Your task to perform on an android device: Open eBay Image 0: 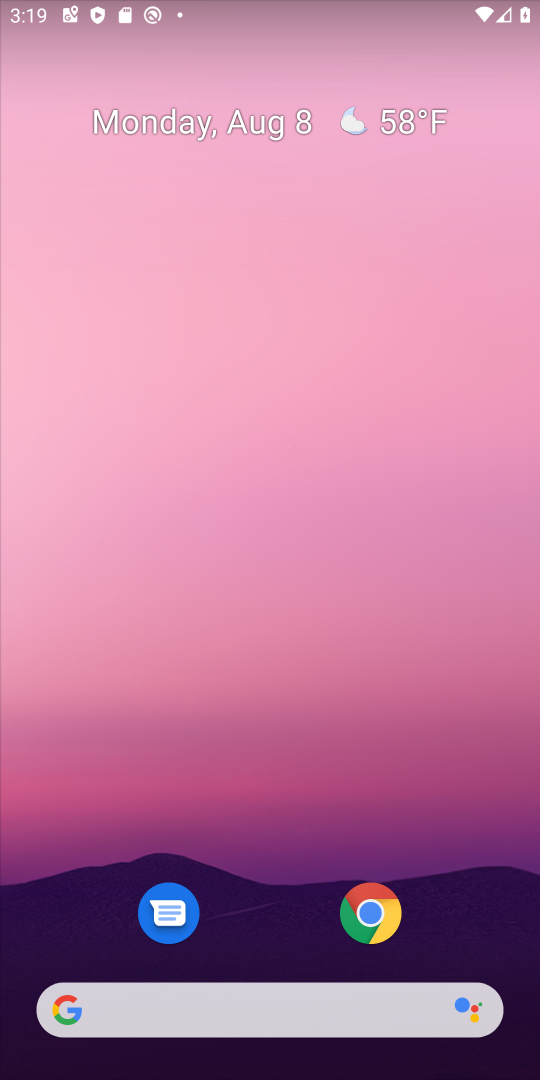
Step 0: press home button
Your task to perform on an android device: Open eBay Image 1: 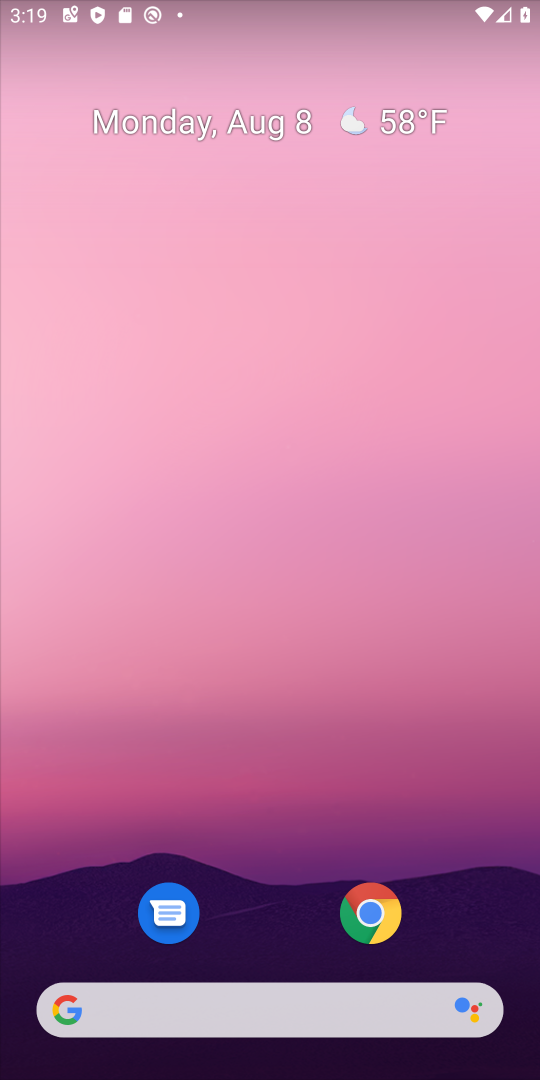
Step 1: drag from (273, 905) to (319, 196)
Your task to perform on an android device: Open eBay Image 2: 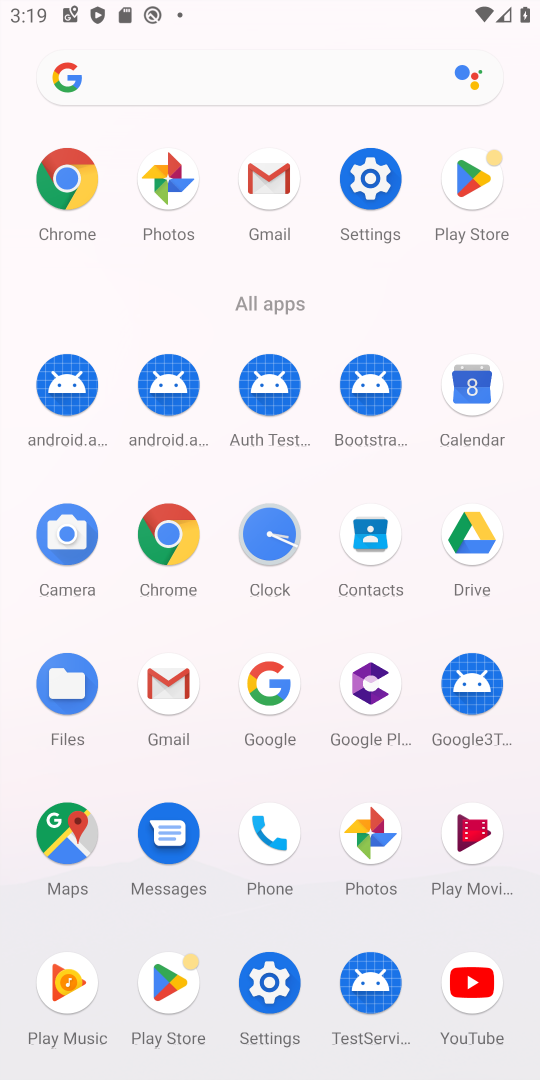
Step 2: click (171, 539)
Your task to perform on an android device: Open eBay Image 3: 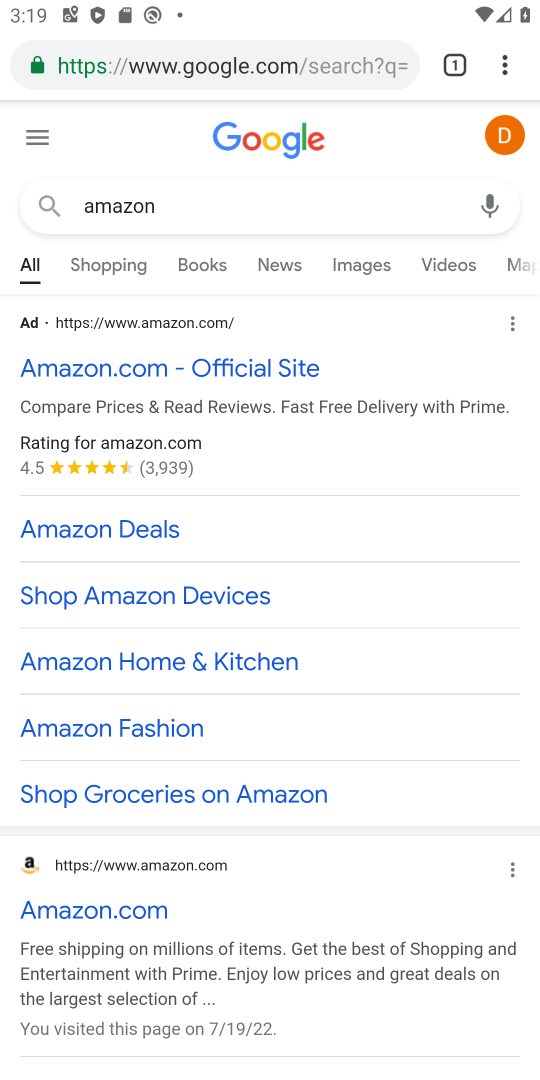
Step 3: click (342, 66)
Your task to perform on an android device: Open eBay Image 4: 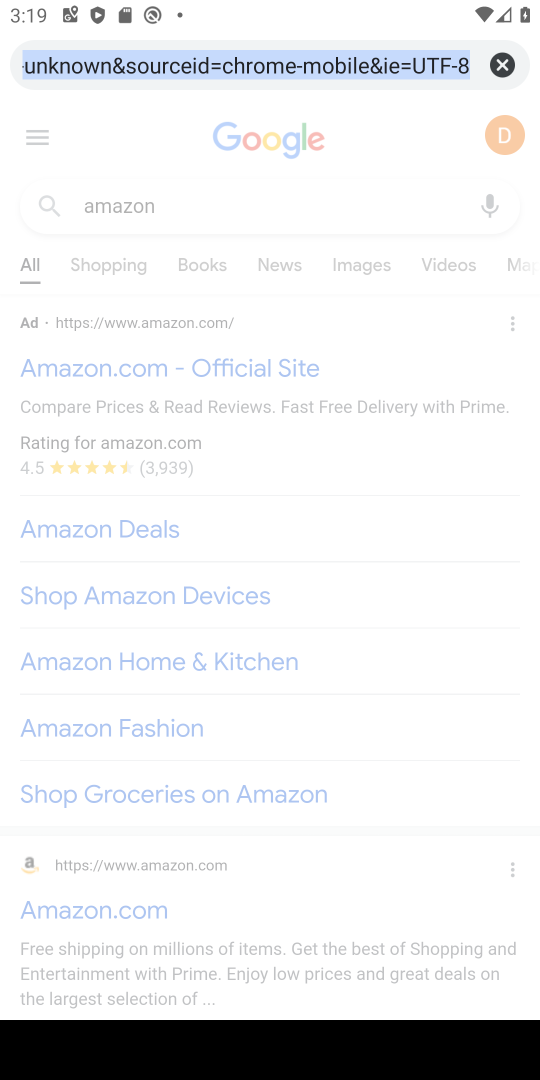
Step 4: type "ebay"
Your task to perform on an android device: Open eBay Image 5: 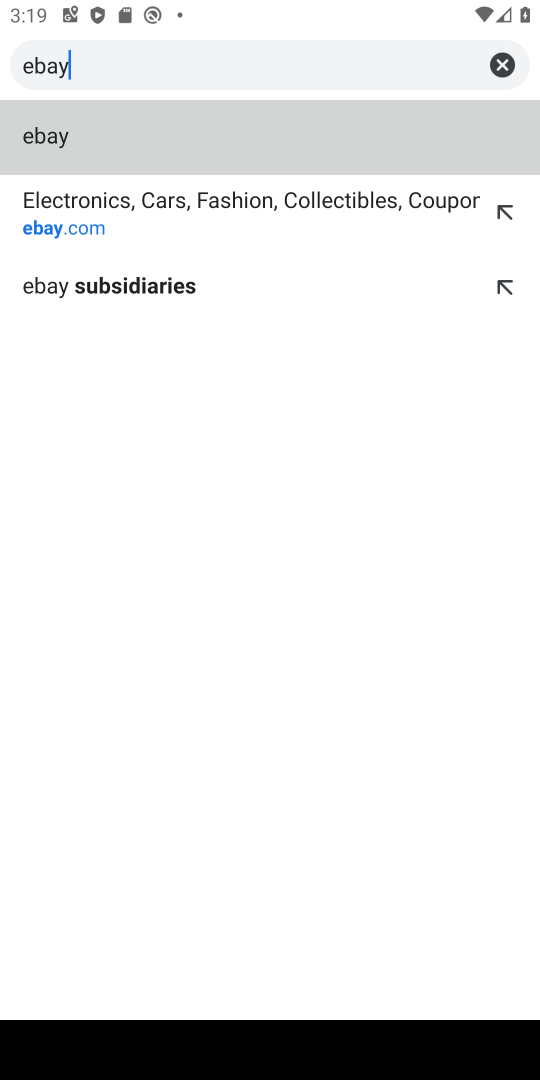
Step 5: click (209, 120)
Your task to perform on an android device: Open eBay Image 6: 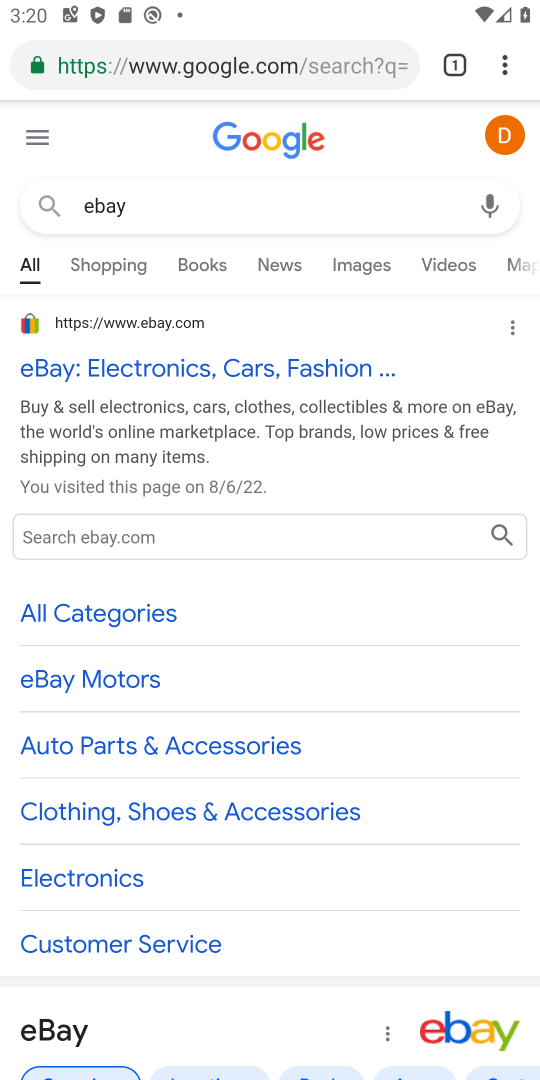
Step 6: task complete